Your task to perform on an android device: Search for dell xps on bestbuy.com, select the first entry, add it to the cart, then select checkout. Image 0: 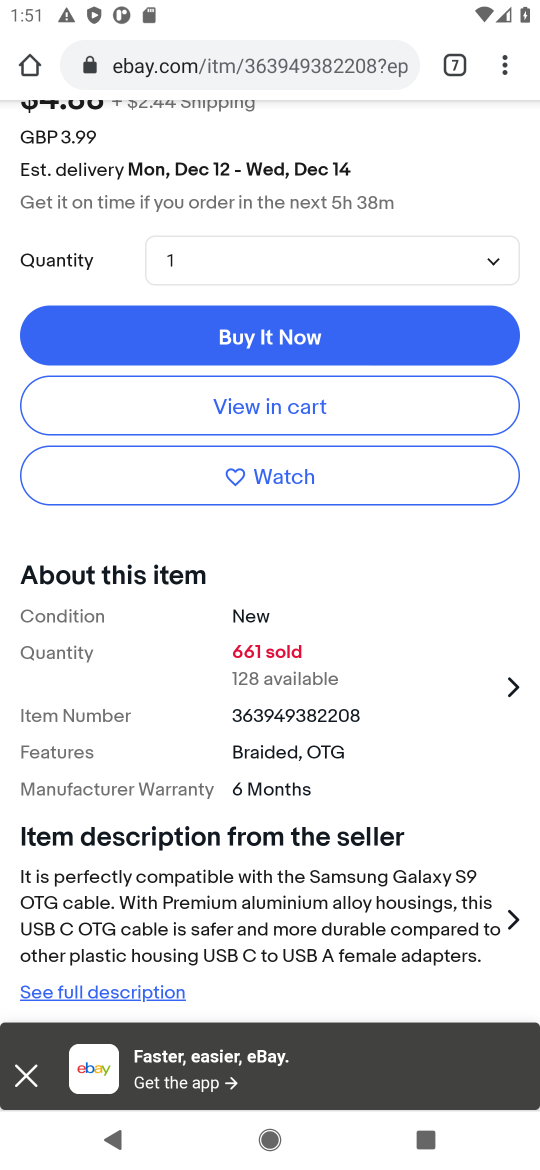
Step 0: press home button
Your task to perform on an android device: Search for dell xps on bestbuy.com, select the first entry, add it to the cart, then select checkout. Image 1: 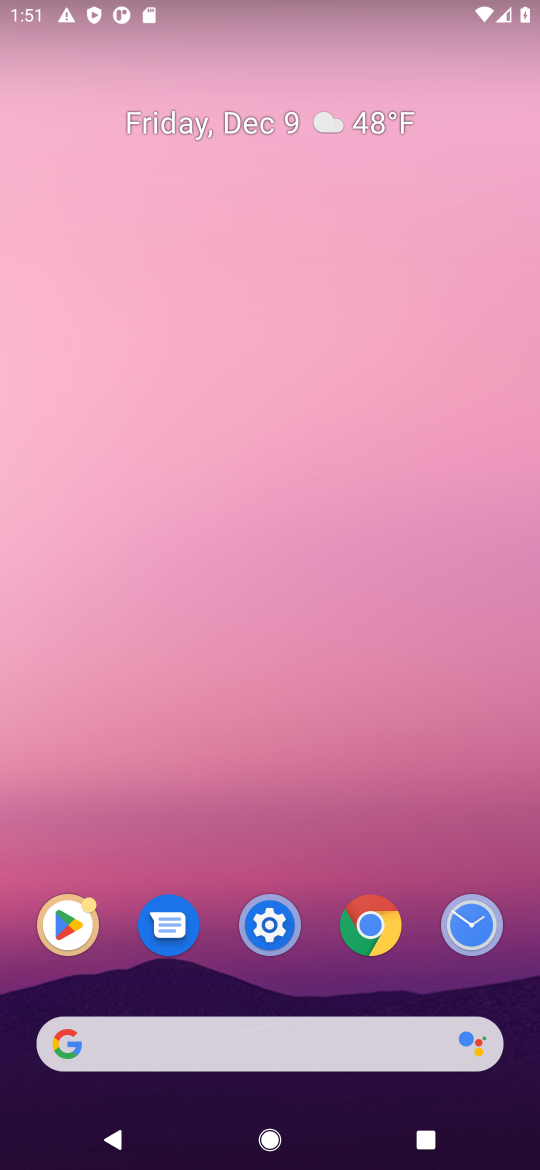
Step 1: click (215, 1053)
Your task to perform on an android device: Search for dell xps on bestbuy.com, select the first entry, add it to the cart, then select checkout. Image 2: 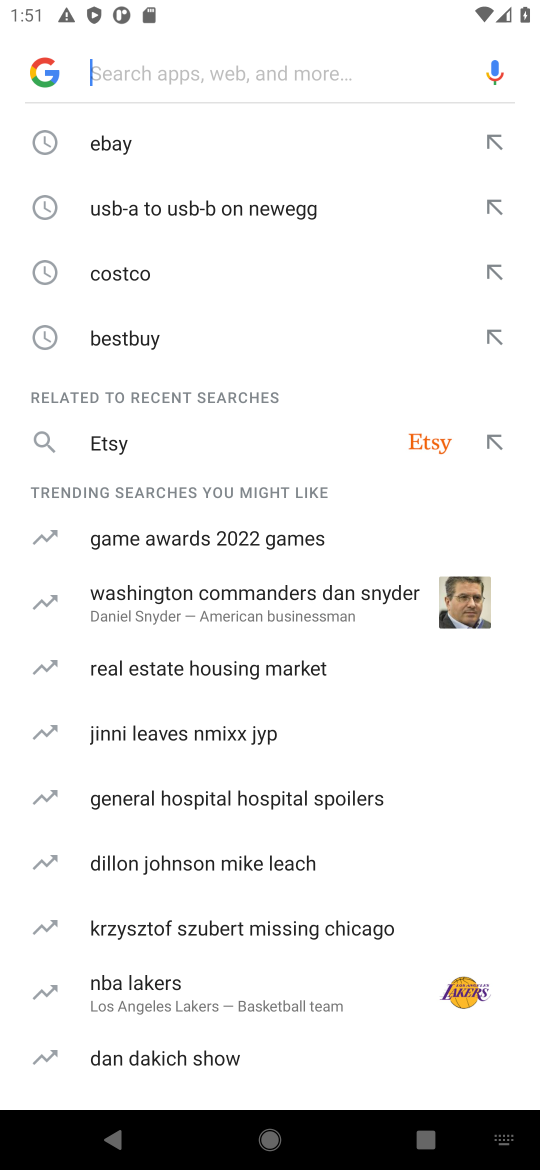
Step 2: type "bestbuy"
Your task to perform on an android device: Search for dell xps on bestbuy.com, select the first entry, add it to the cart, then select checkout. Image 3: 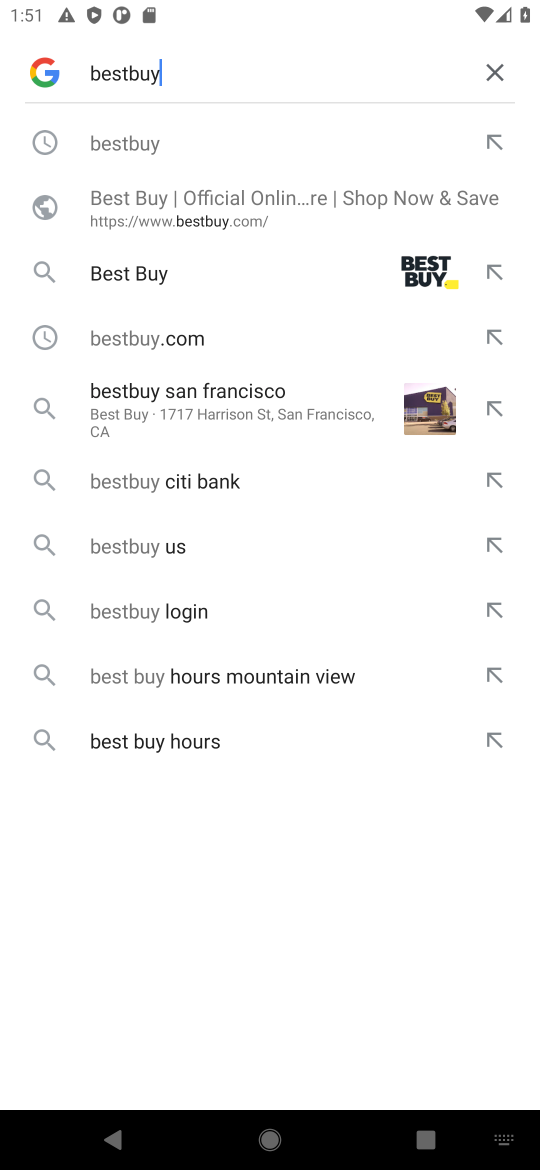
Step 3: click (153, 300)
Your task to perform on an android device: Search for dell xps on bestbuy.com, select the first entry, add it to the cart, then select checkout. Image 4: 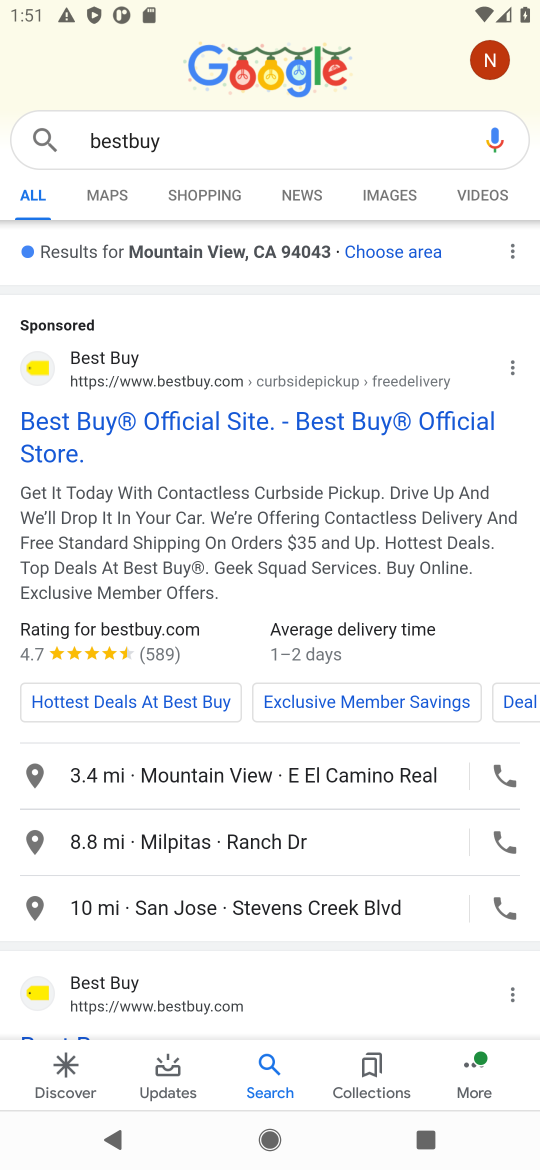
Step 4: click (167, 424)
Your task to perform on an android device: Search for dell xps on bestbuy.com, select the first entry, add it to the cart, then select checkout. Image 5: 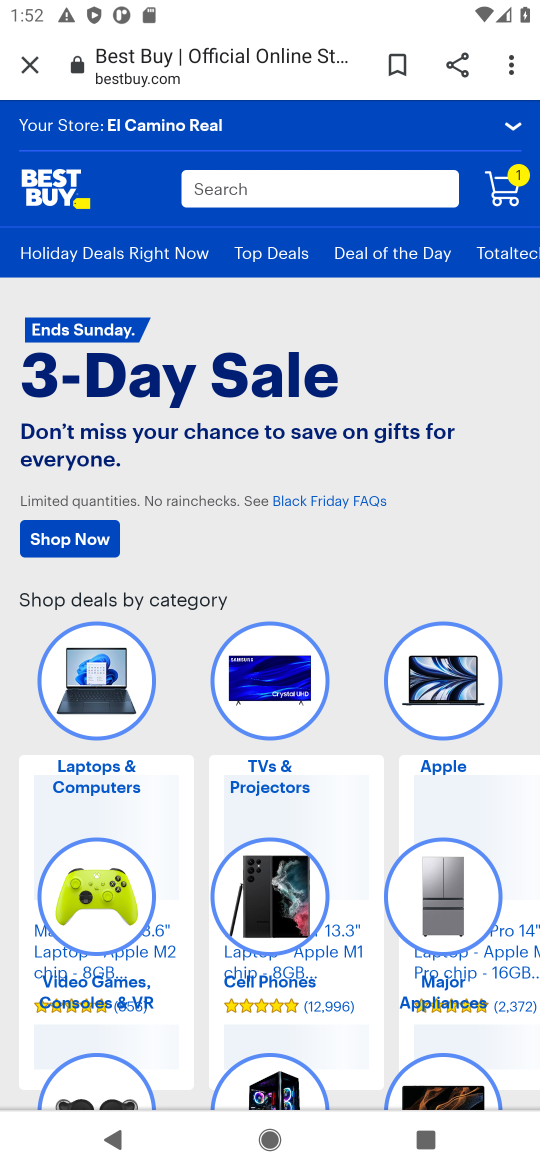
Step 5: click (219, 199)
Your task to perform on an android device: Search for dell xps on bestbuy.com, select the first entry, add it to the cart, then select checkout. Image 6: 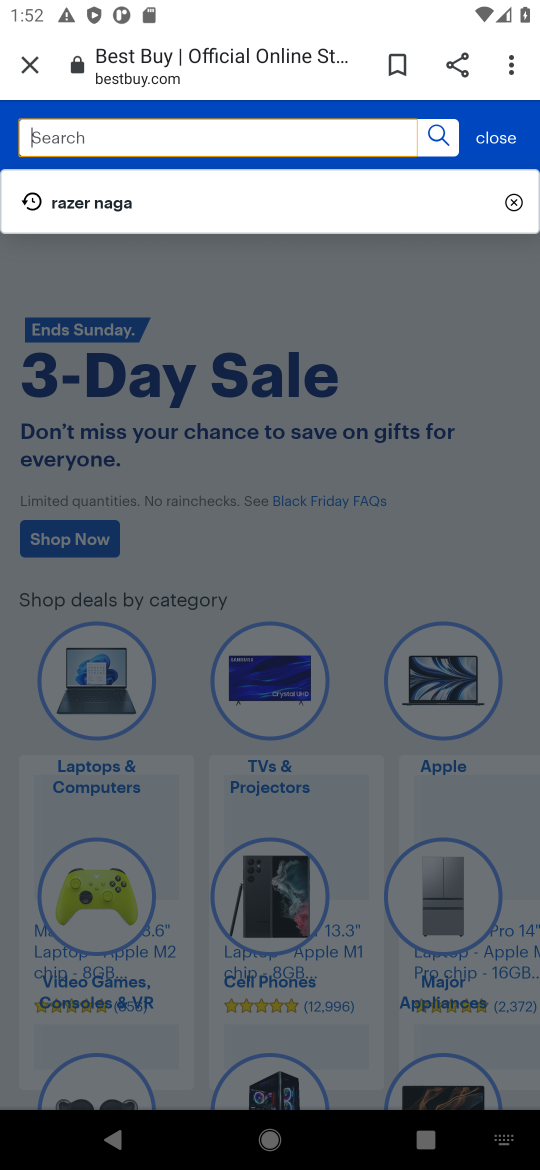
Step 6: type "dell xps"
Your task to perform on an android device: Search for dell xps on bestbuy.com, select the first entry, add it to the cart, then select checkout. Image 7: 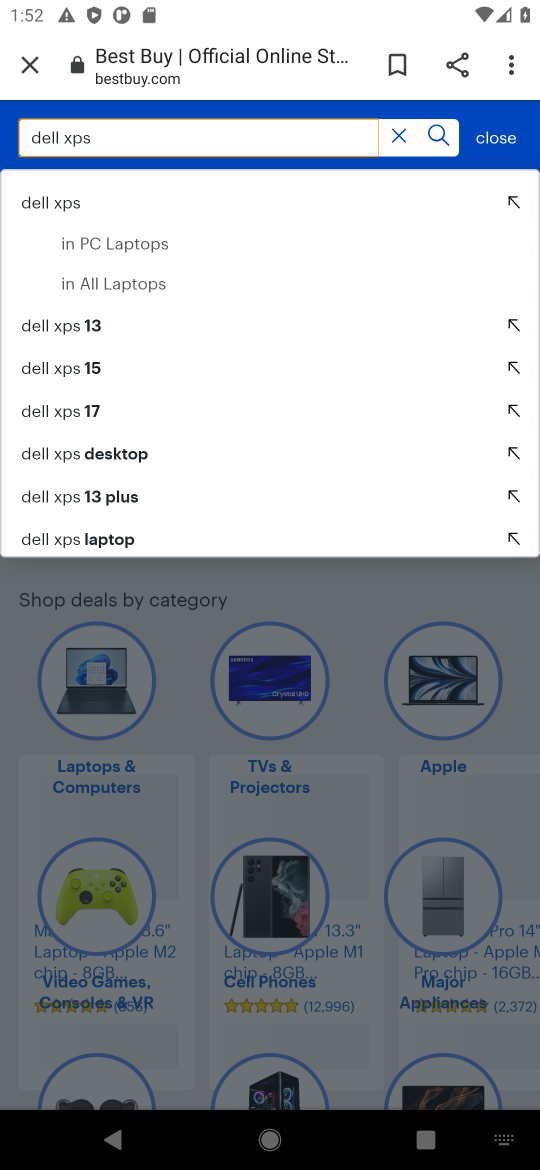
Step 7: click (269, 197)
Your task to perform on an android device: Search for dell xps on bestbuy.com, select the first entry, add it to the cart, then select checkout. Image 8: 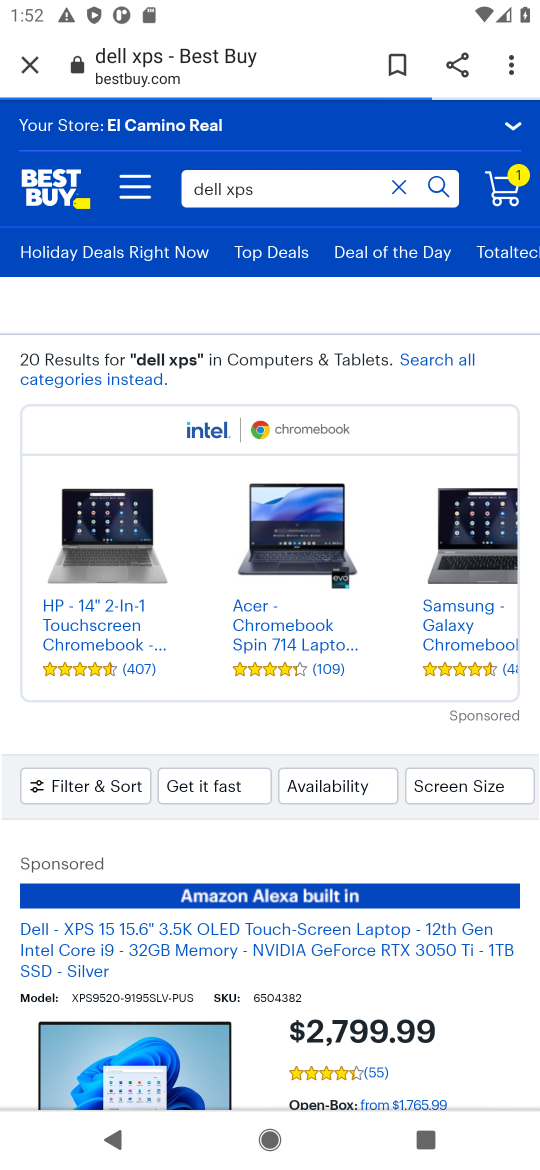
Step 8: drag from (360, 1017) to (362, 487)
Your task to perform on an android device: Search for dell xps on bestbuy.com, select the first entry, add it to the cart, then select checkout. Image 9: 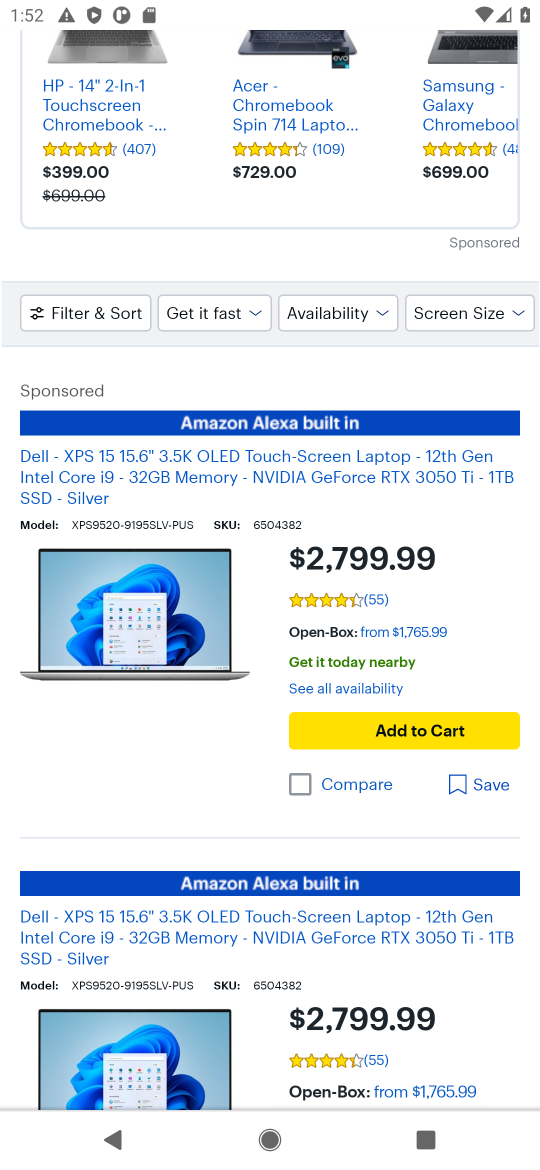
Step 9: click (422, 686)
Your task to perform on an android device: Search for dell xps on bestbuy.com, select the first entry, add it to the cart, then select checkout. Image 10: 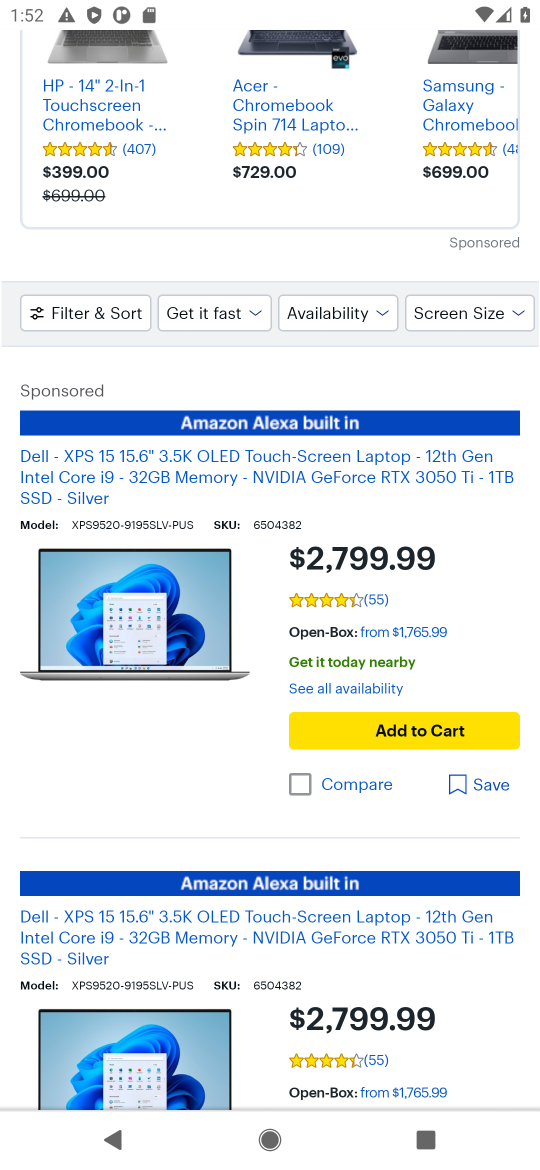
Step 10: click (432, 717)
Your task to perform on an android device: Search for dell xps on bestbuy.com, select the first entry, add it to the cart, then select checkout. Image 11: 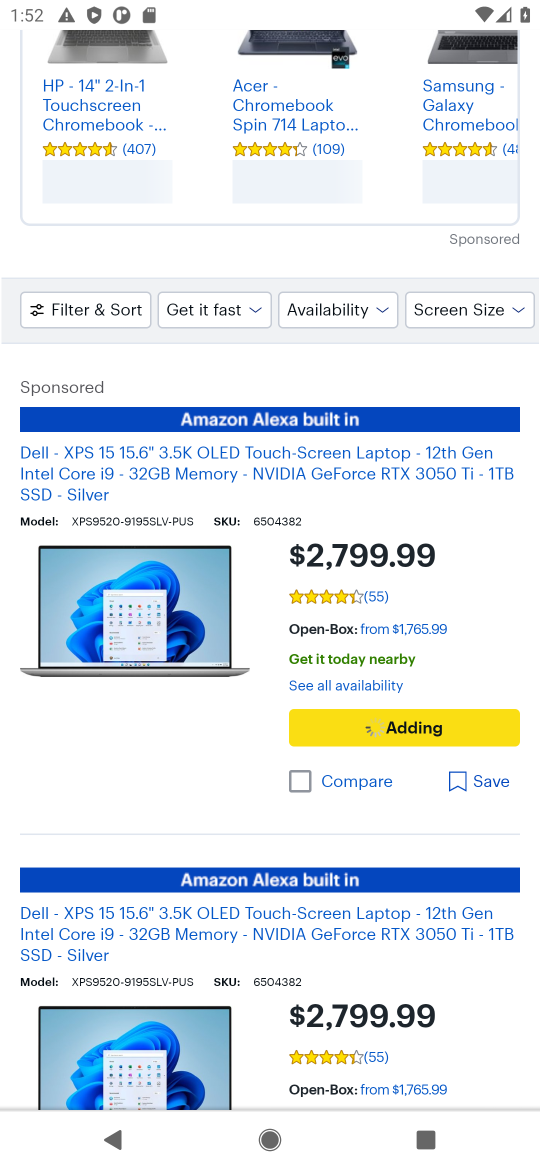
Step 11: task complete